Your task to perform on an android device: manage bookmarks in the chrome app Image 0: 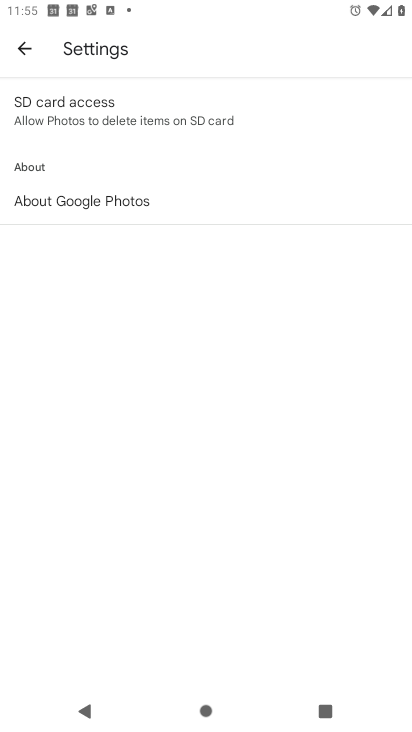
Step 0: press home button
Your task to perform on an android device: manage bookmarks in the chrome app Image 1: 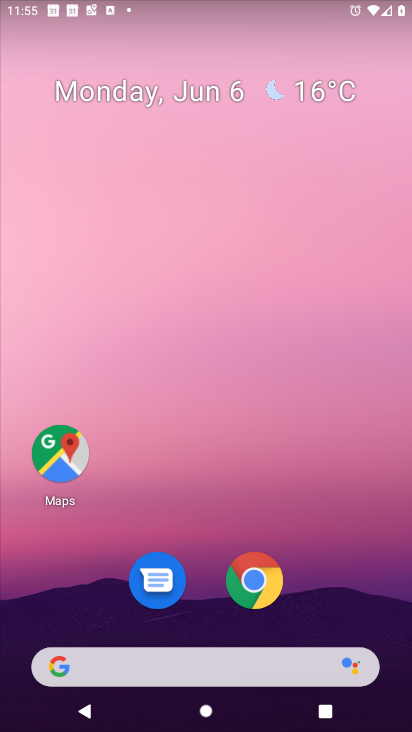
Step 1: drag from (337, 562) to (399, 0)
Your task to perform on an android device: manage bookmarks in the chrome app Image 2: 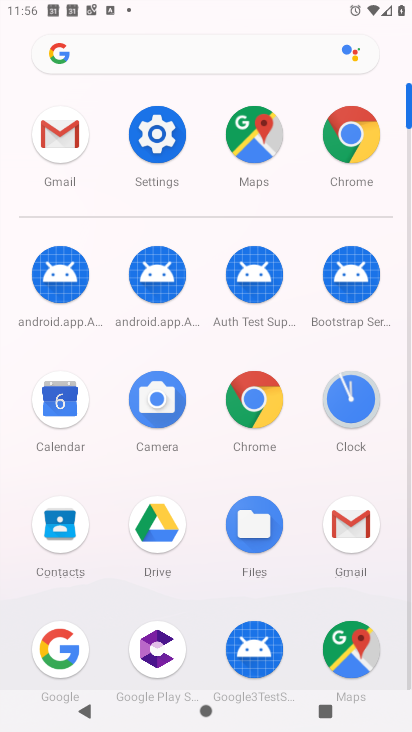
Step 2: click (367, 141)
Your task to perform on an android device: manage bookmarks in the chrome app Image 3: 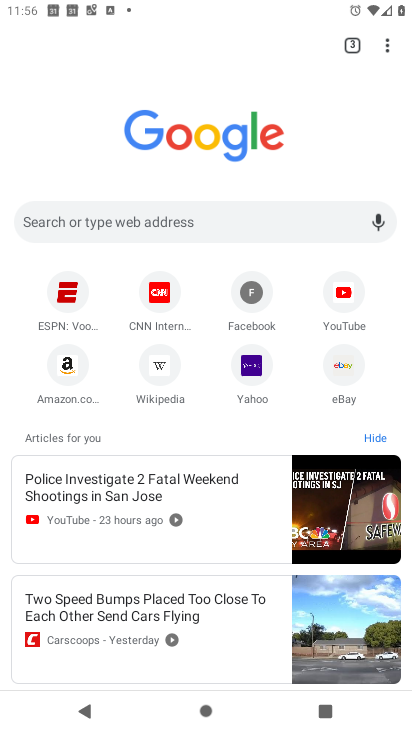
Step 3: task complete